Your task to perform on an android device: Add razer blade to the cart on costco.com, then select checkout. Image 0: 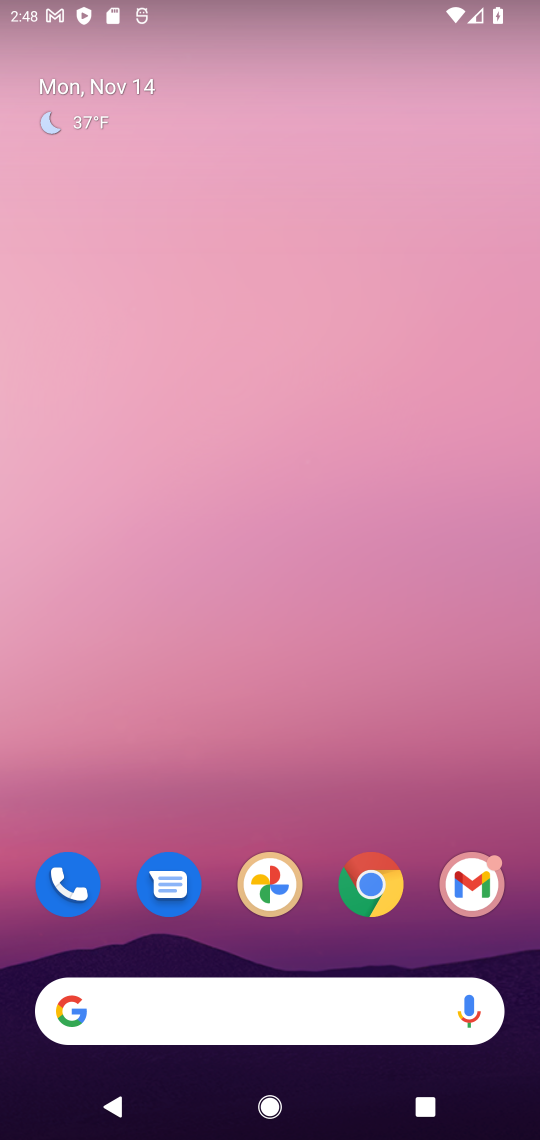
Step 0: click (385, 887)
Your task to perform on an android device: Add razer blade to the cart on costco.com, then select checkout. Image 1: 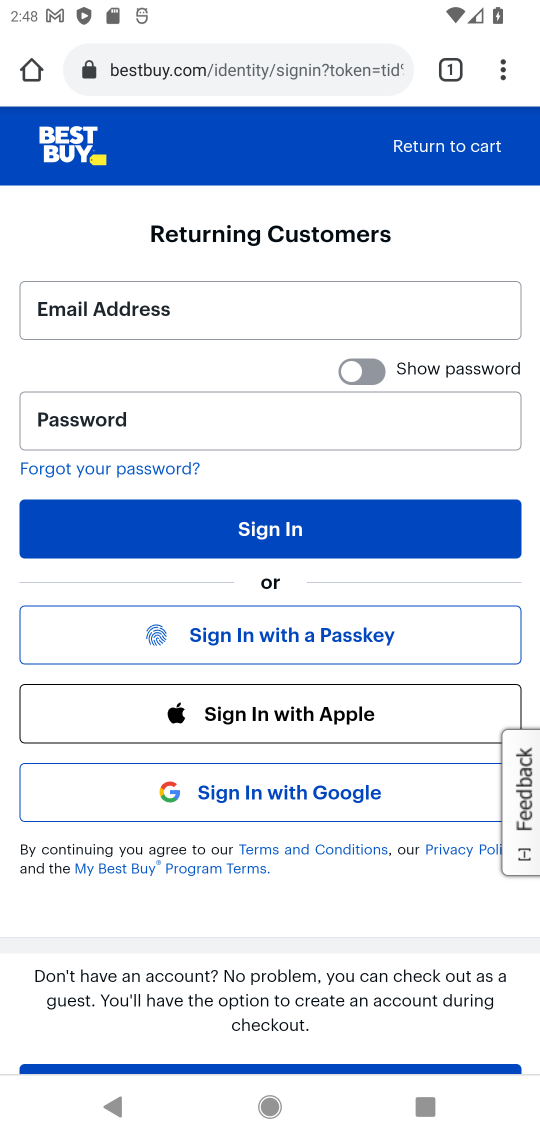
Step 1: click (164, 75)
Your task to perform on an android device: Add razer blade to the cart on costco.com, then select checkout. Image 2: 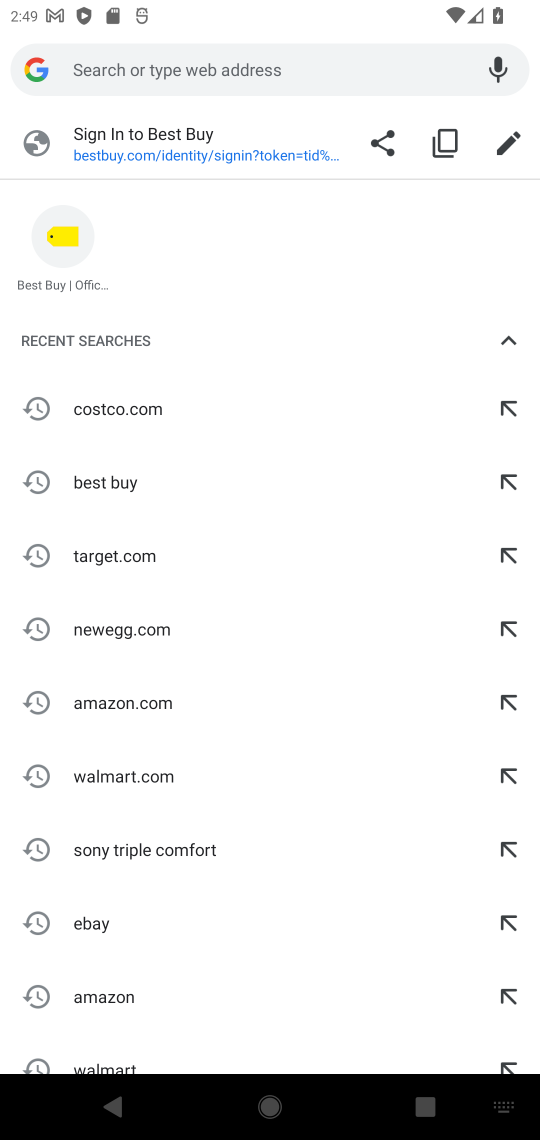
Step 2: click (85, 407)
Your task to perform on an android device: Add razer blade to the cart on costco.com, then select checkout. Image 3: 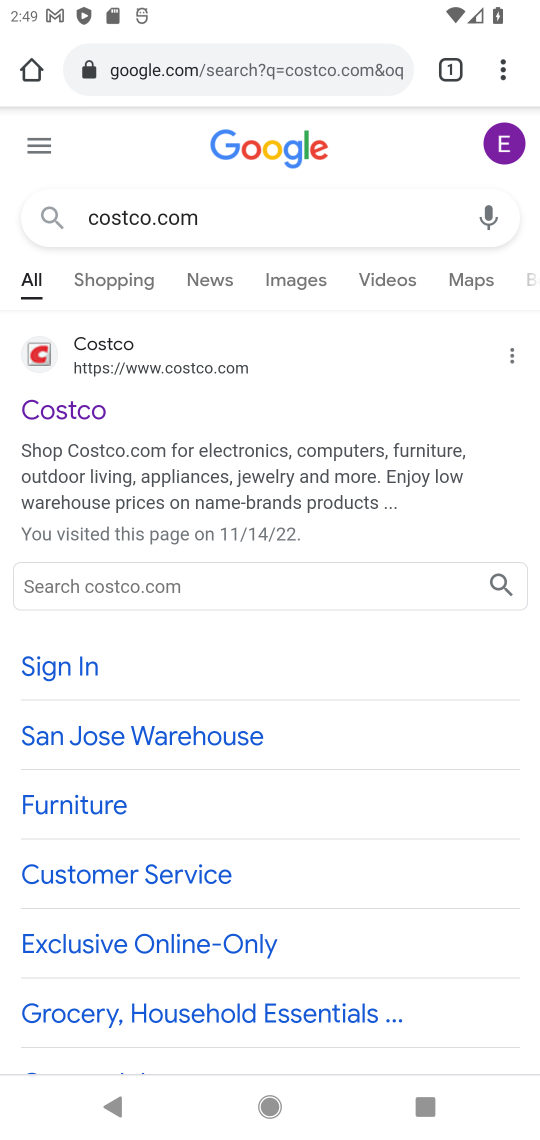
Step 3: click (112, 373)
Your task to perform on an android device: Add razer blade to the cart on costco.com, then select checkout. Image 4: 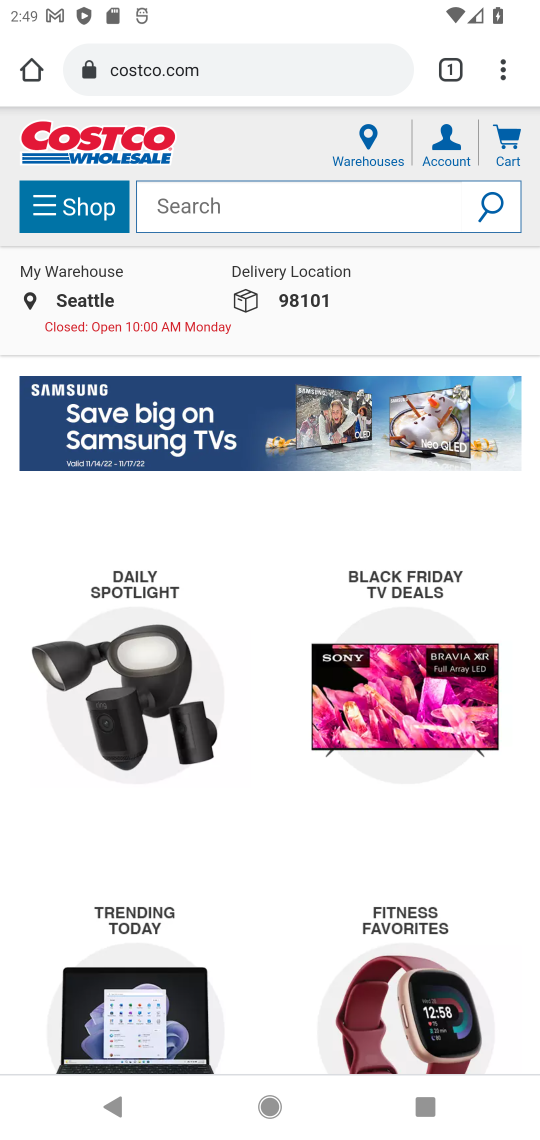
Step 4: click (487, 198)
Your task to perform on an android device: Add razer blade to the cart on costco.com, then select checkout. Image 5: 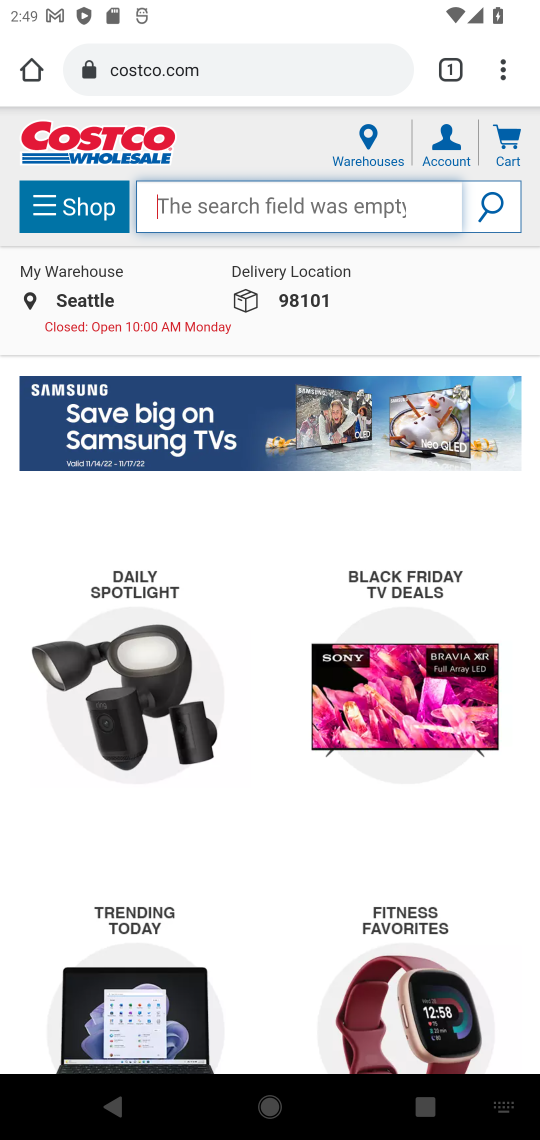
Step 5: type "razer blade"
Your task to perform on an android device: Add razer blade to the cart on costco.com, then select checkout. Image 6: 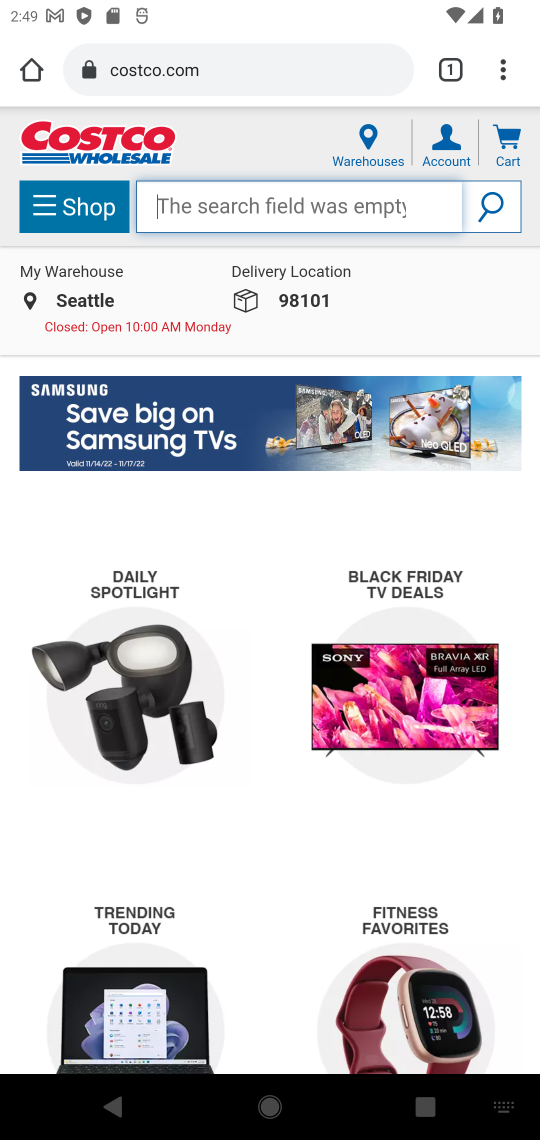
Step 6: press enter
Your task to perform on an android device: Add razer blade to the cart on costco.com, then select checkout. Image 7: 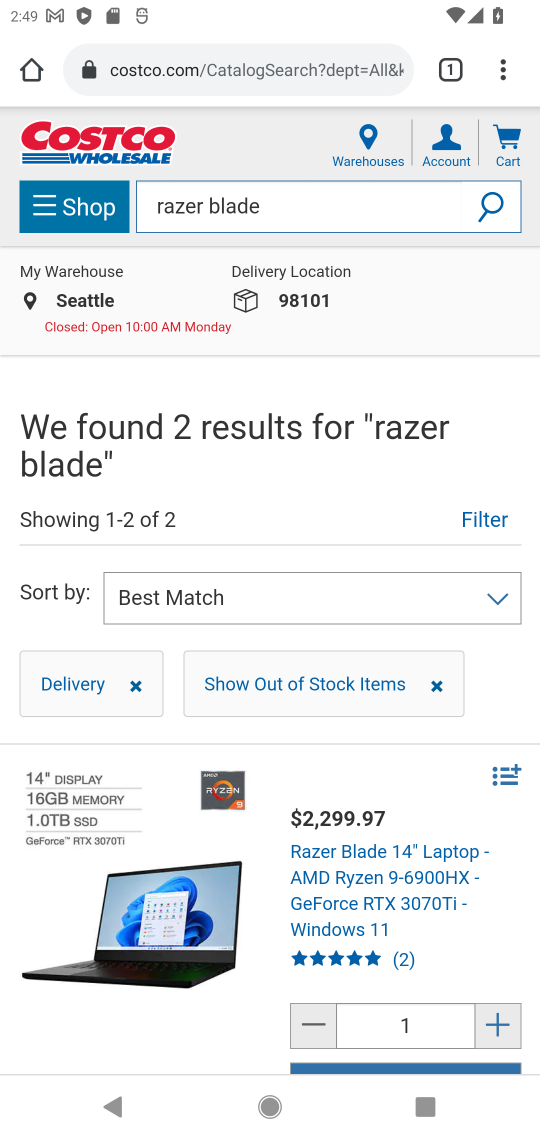
Step 7: click (173, 935)
Your task to perform on an android device: Add razer blade to the cart on costco.com, then select checkout. Image 8: 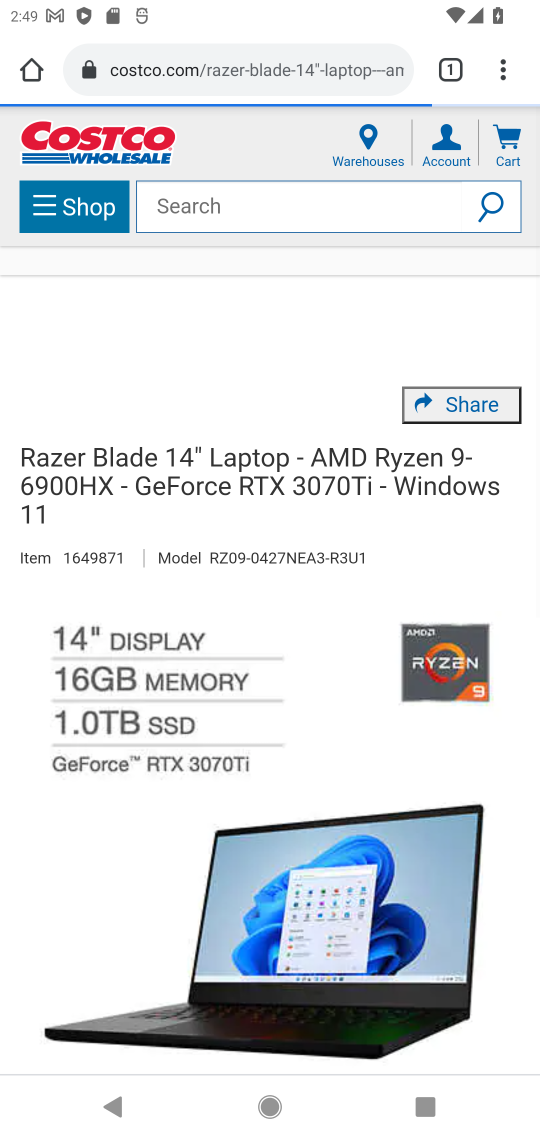
Step 8: drag from (355, 793) to (464, 444)
Your task to perform on an android device: Add razer blade to the cart on costco.com, then select checkout. Image 9: 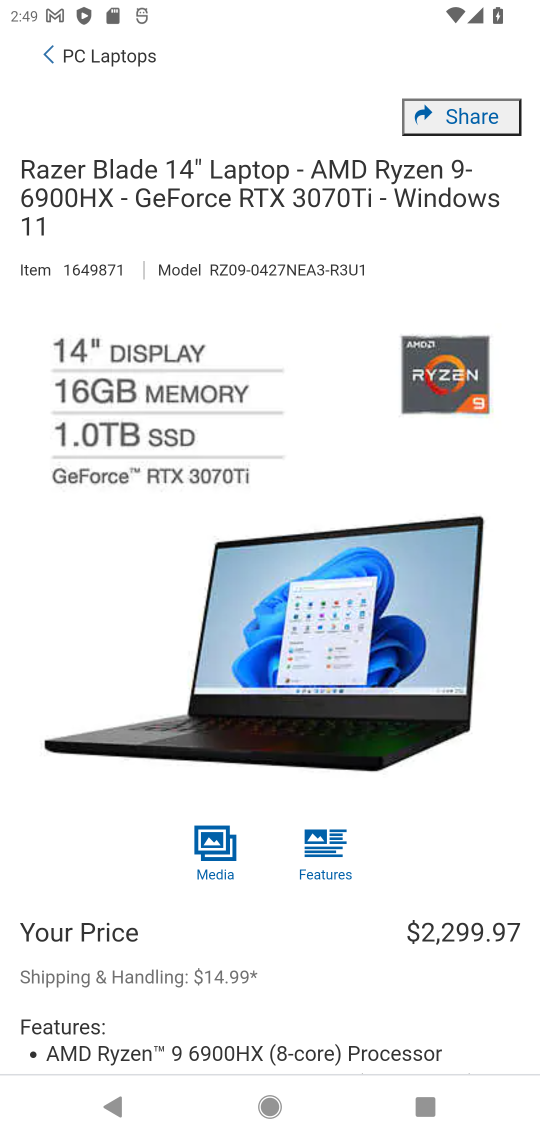
Step 9: drag from (336, 848) to (364, 188)
Your task to perform on an android device: Add razer blade to the cart on costco.com, then select checkout. Image 10: 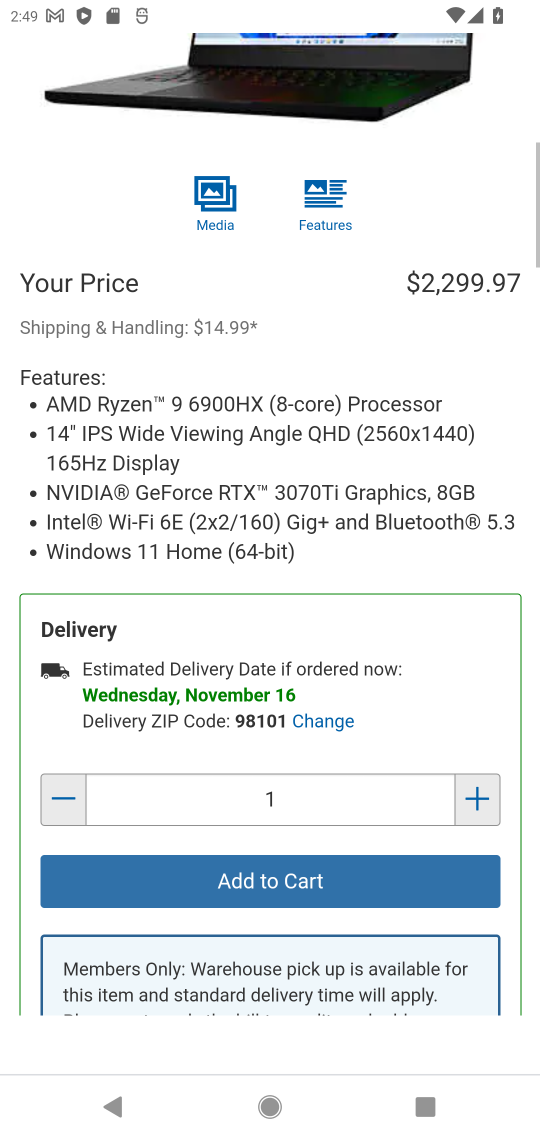
Step 10: drag from (484, 946) to (506, 389)
Your task to perform on an android device: Add razer blade to the cart on costco.com, then select checkout. Image 11: 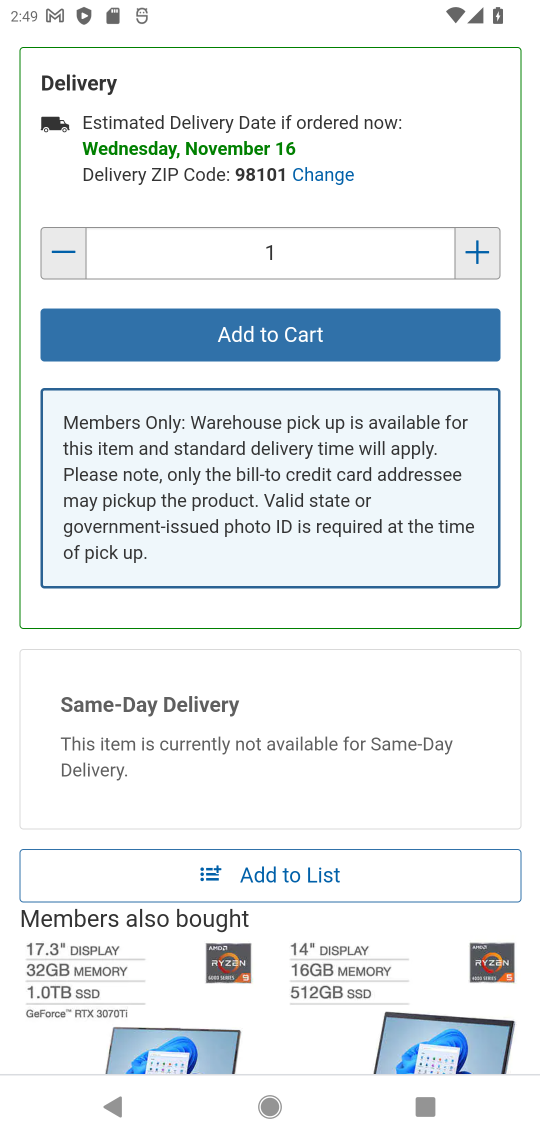
Step 11: click (275, 332)
Your task to perform on an android device: Add razer blade to the cart on costco.com, then select checkout. Image 12: 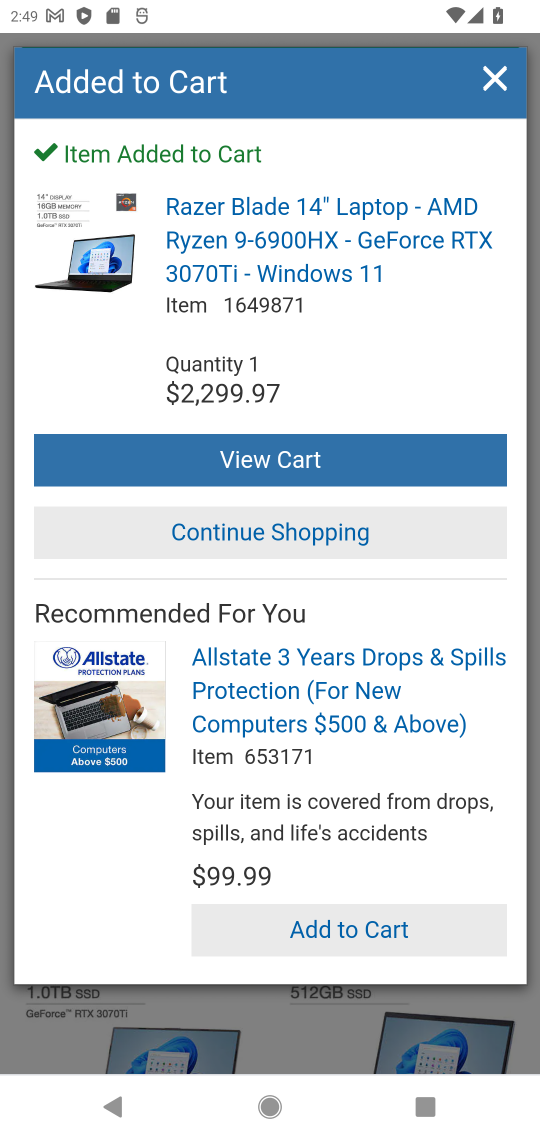
Step 12: click (340, 461)
Your task to perform on an android device: Add razer blade to the cart on costco.com, then select checkout. Image 13: 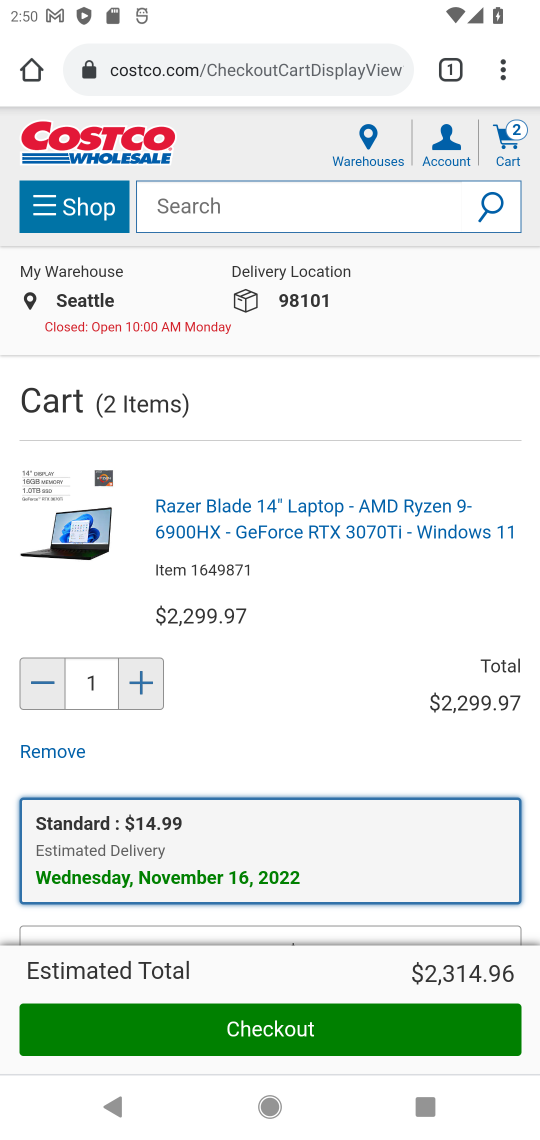
Step 13: click (283, 1028)
Your task to perform on an android device: Add razer blade to the cart on costco.com, then select checkout. Image 14: 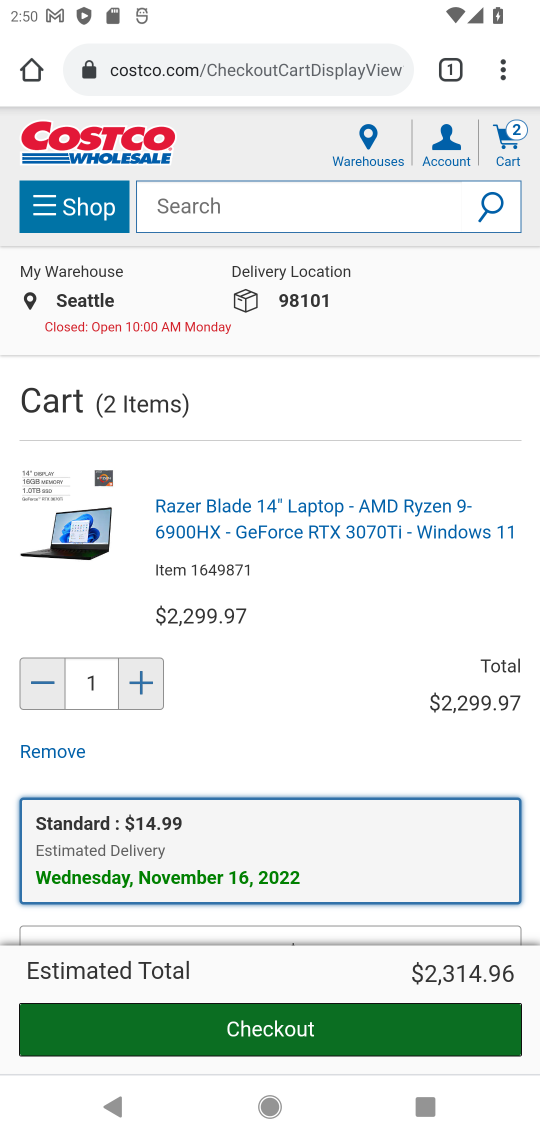
Step 14: click (292, 1020)
Your task to perform on an android device: Add razer blade to the cart on costco.com, then select checkout. Image 15: 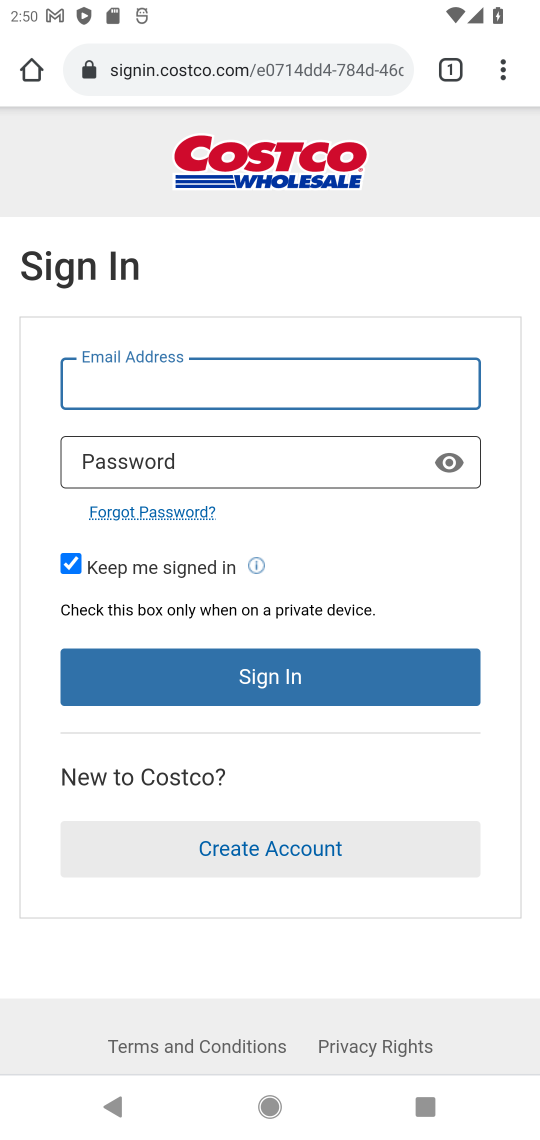
Step 15: task complete